Your task to perform on an android device: Check the weather Image 0: 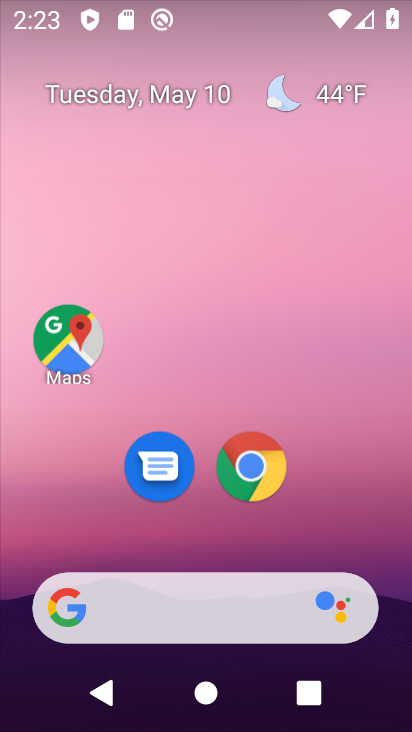
Step 0: drag from (321, 524) to (297, 0)
Your task to perform on an android device: Check the weather Image 1: 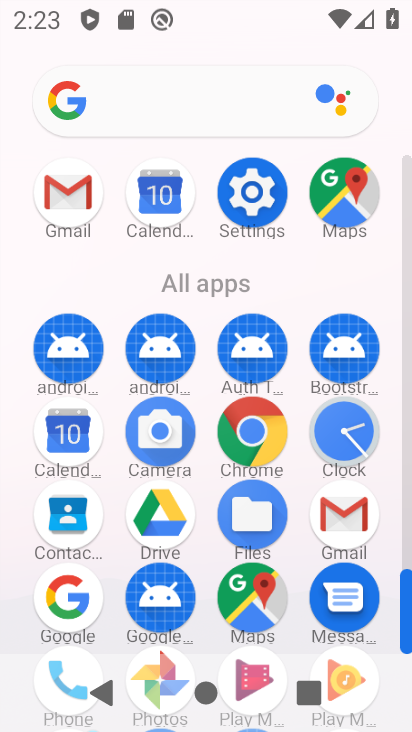
Step 1: click (61, 594)
Your task to perform on an android device: Check the weather Image 2: 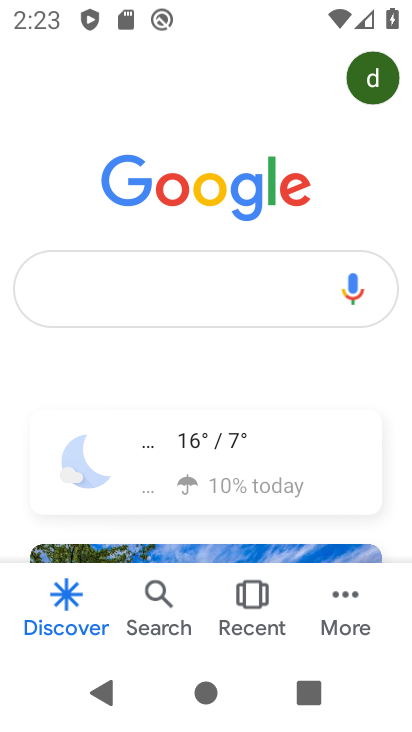
Step 2: click (173, 273)
Your task to perform on an android device: Check the weather Image 3: 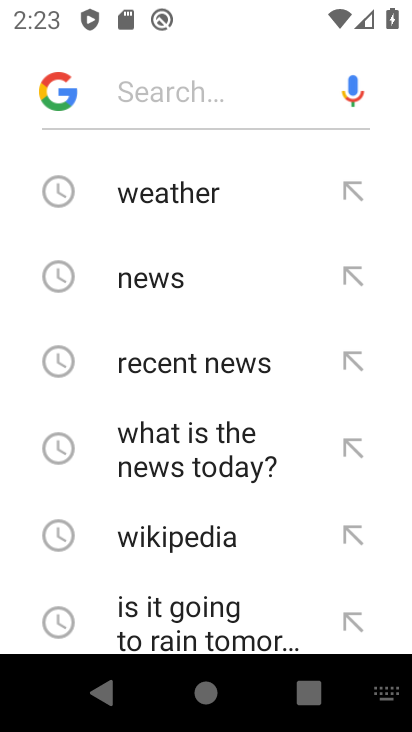
Step 3: click (170, 195)
Your task to perform on an android device: Check the weather Image 4: 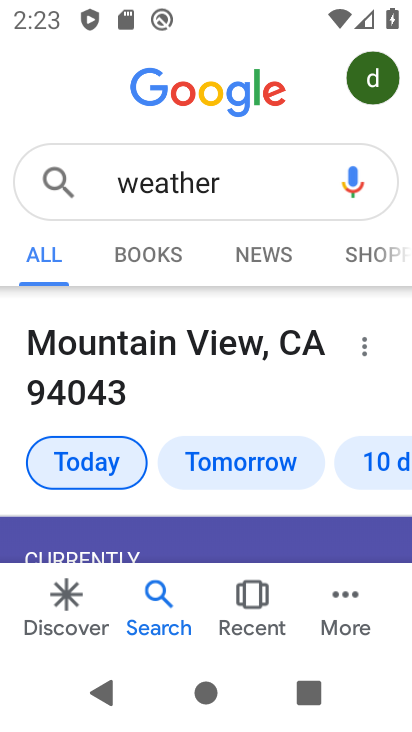
Step 4: task complete